Your task to perform on an android device: Is it going to rain tomorrow? Image 0: 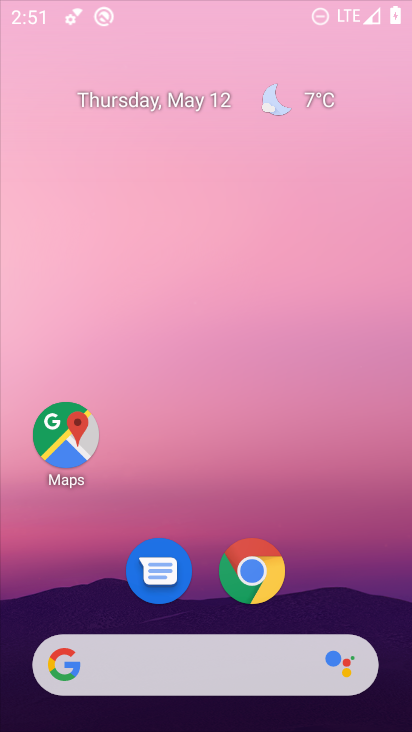
Step 0: drag from (359, 595) to (211, 1)
Your task to perform on an android device: Is it going to rain tomorrow? Image 1: 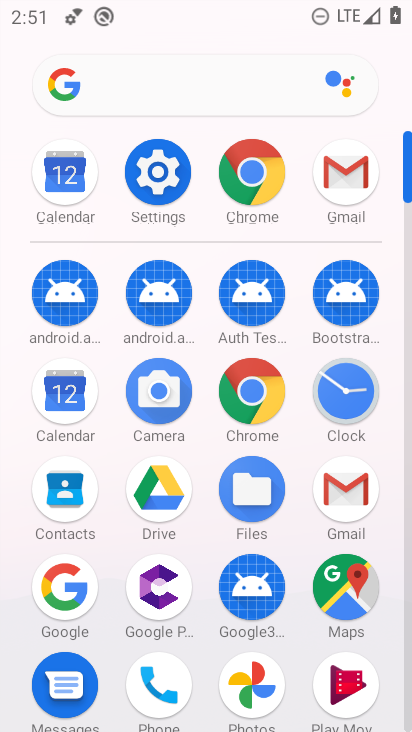
Step 1: click (348, 599)
Your task to perform on an android device: Is it going to rain tomorrow? Image 2: 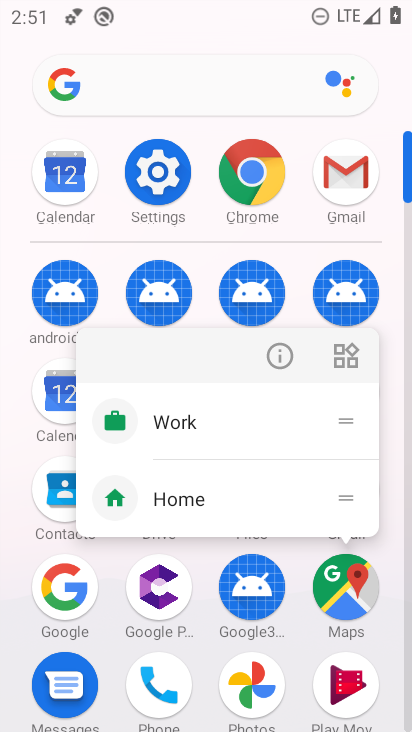
Step 2: click (24, 507)
Your task to perform on an android device: Is it going to rain tomorrow? Image 3: 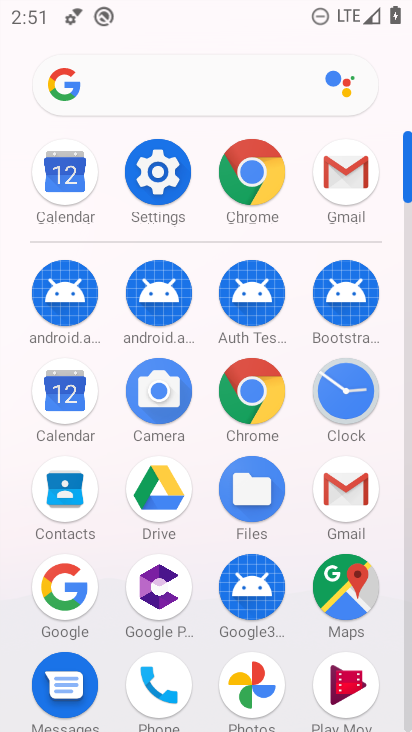
Step 3: click (25, 438)
Your task to perform on an android device: Is it going to rain tomorrow? Image 4: 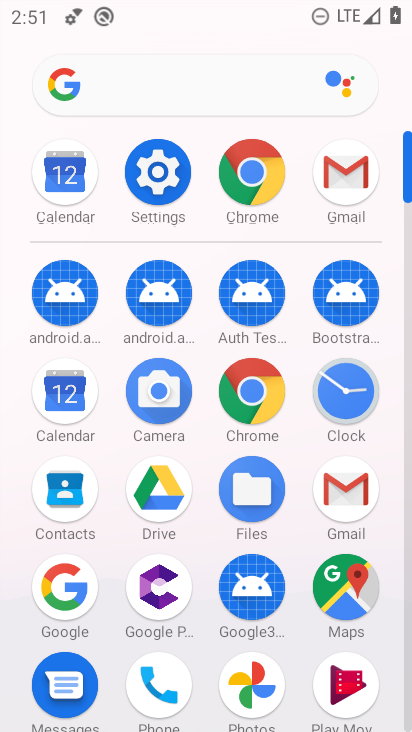
Step 4: click (33, 386)
Your task to perform on an android device: Is it going to rain tomorrow? Image 5: 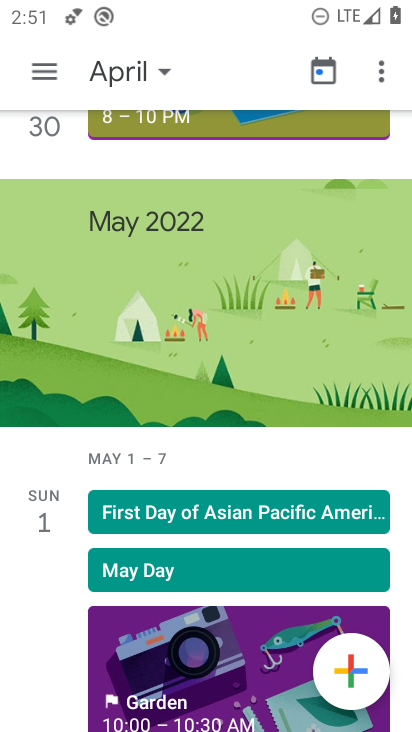
Step 5: click (184, 383)
Your task to perform on an android device: Is it going to rain tomorrow? Image 6: 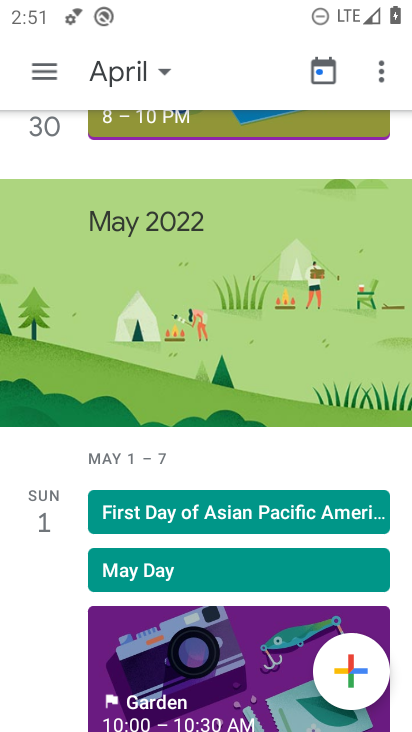
Step 6: press back button
Your task to perform on an android device: Is it going to rain tomorrow? Image 7: 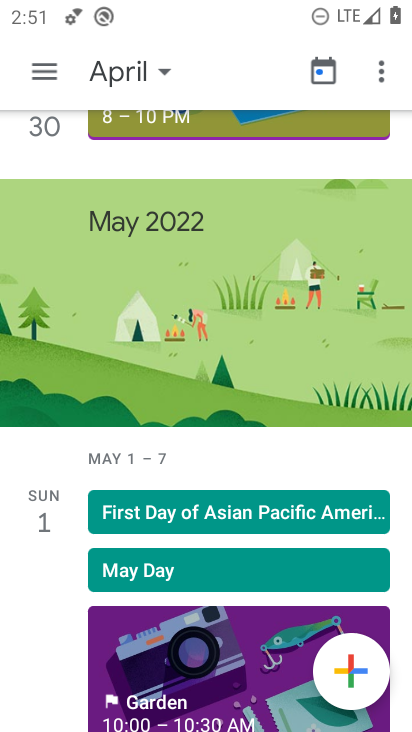
Step 7: press back button
Your task to perform on an android device: Is it going to rain tomorrow? Image 8: 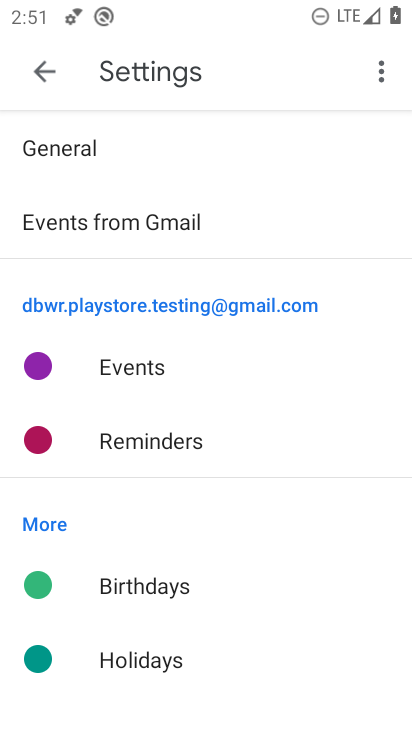
Step 8: press back button
Your task to perform on an android device: Is it going to rain tomorrow? Image 9: 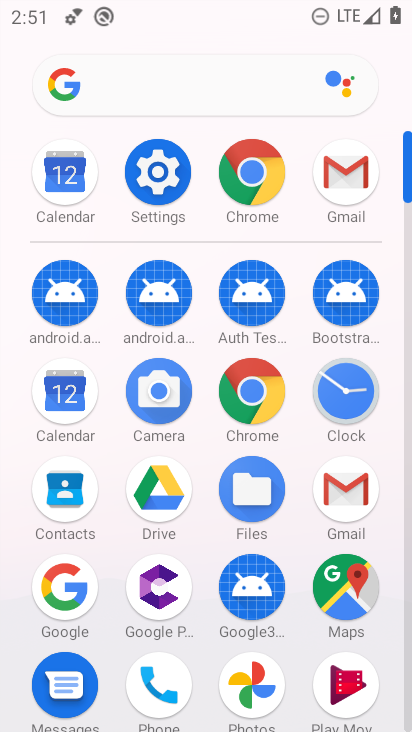
Step 9: press home button
Your task to perform on an android device: Is it going to rain tomorrow? Image 10: 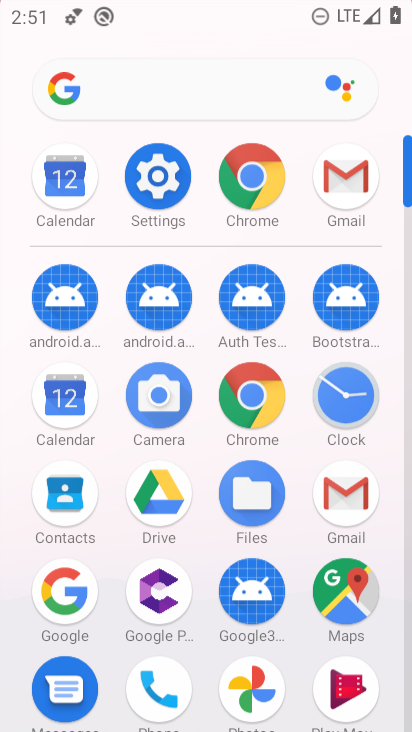
Step 10: press home button
Your task to perform on an android device: Is it going to rain tomorrow? Image 11: 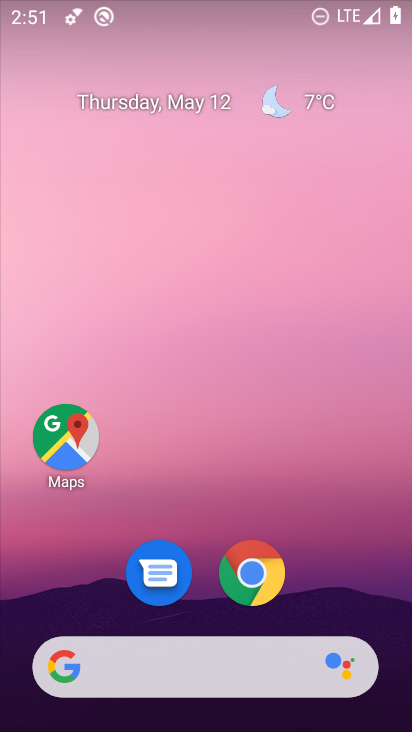
Step 11: press home button
Your task to perform on an android device: Is it going to rain tomorrow? Image 12: 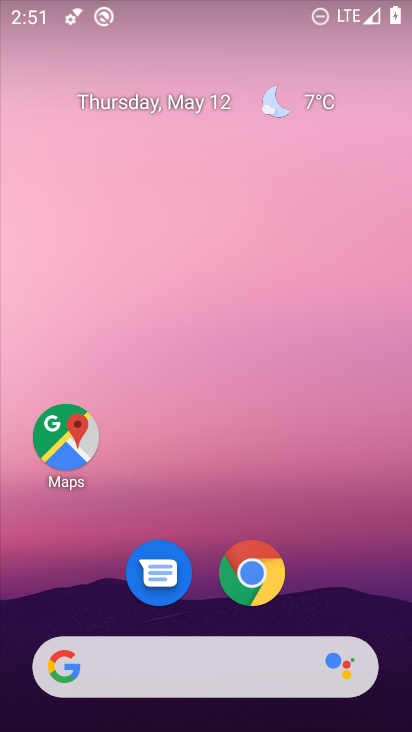
Step 12: click (277, 112)
Your task to perform on an android device: Is it going to rain tomorrow? Image 13: 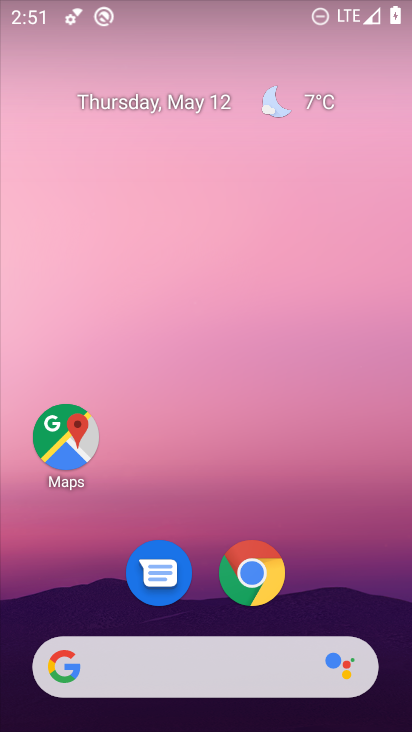
Step 13: click (277, 112)
Your task to perform on an android device: Is it going to rain tomorrow? Image 14: 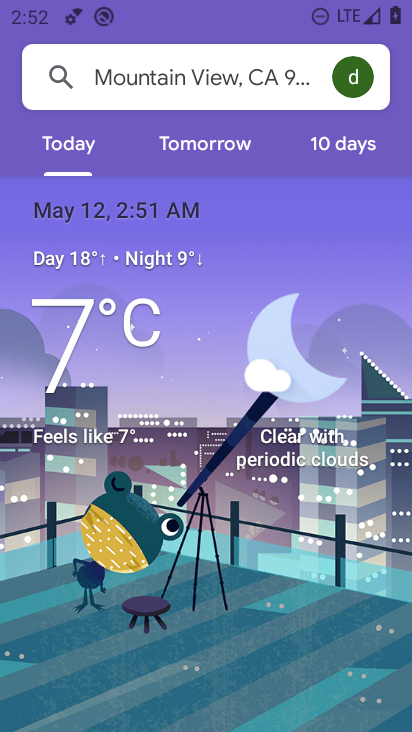
Step 14: drag from (183, 125) to (204, 174)
Your task to perform on an android device: Is it going to rain tomorrow? Image 15: 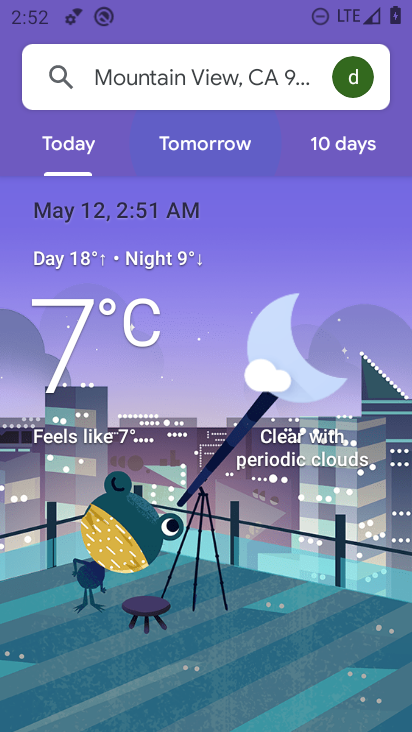
Step 15: click (212, 167)
Your task to perform on an android device: Is it going to rain tomorrow? Image 16: 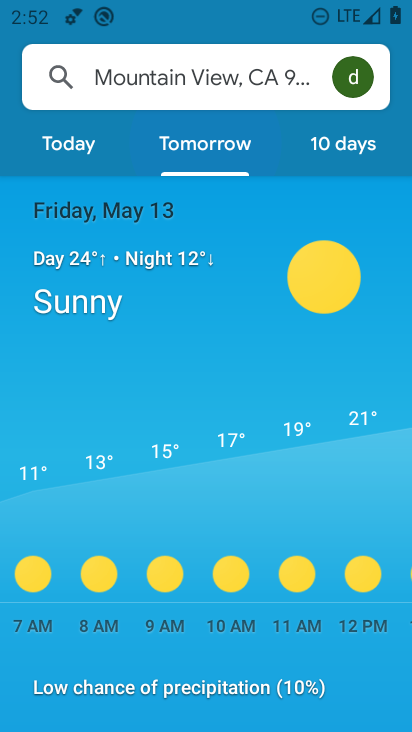
Step 16: click (212, 136)
Your task to perform on an android device: Is it going to rain tomorrow? Image 17: 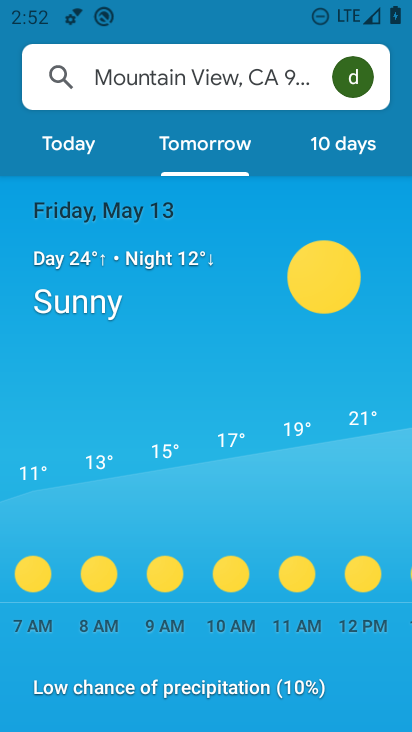
Step 17: task complete